Your task to perform on an android device: turn on javascript in the chrome app Image 0: 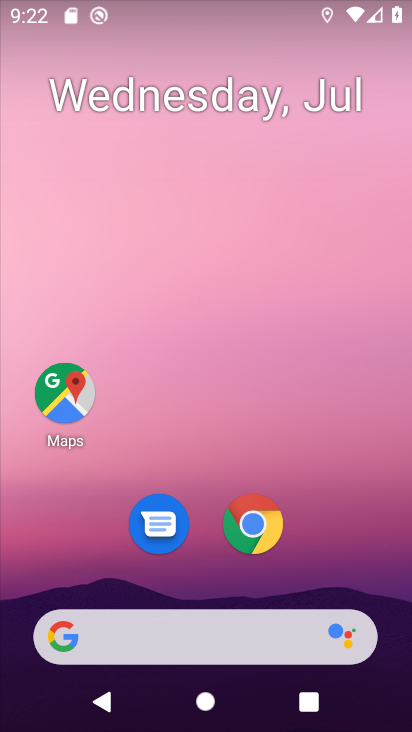
Step 0: click (259, 525)
Your task to perform on an android device: turn on javascript in the chrome app Image 1: 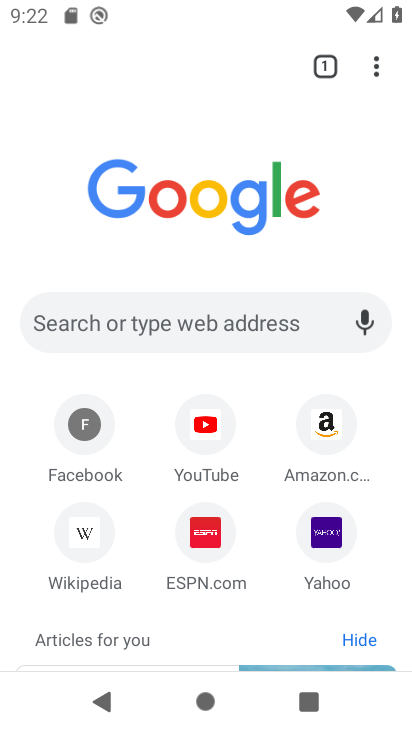
Step 1: click (375, 75)
Your task to perform on an android device: turn on javascript in the chrome app Image 2: 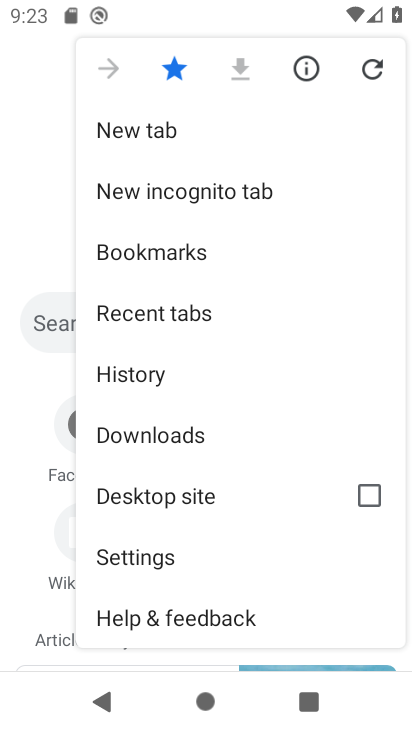
Step 2: click (167, 560)
Your task to perform on an android device: turn on javascript in the chrome app Image 3: 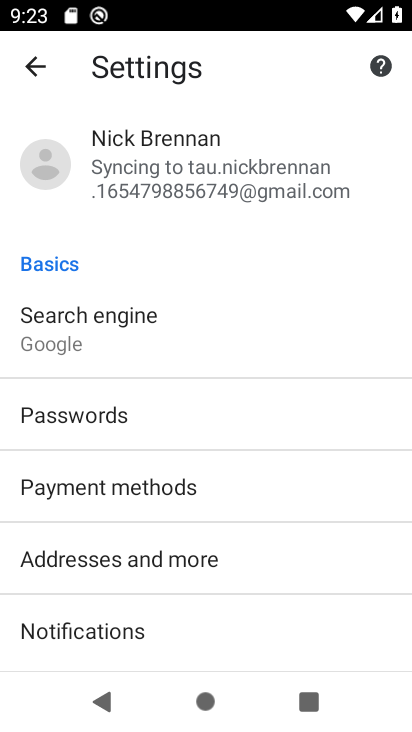
Step 3: drag from (215, 600) to (236, 138)
Your task to perform on an android device: turn on javascript in the chrome app Image 4: 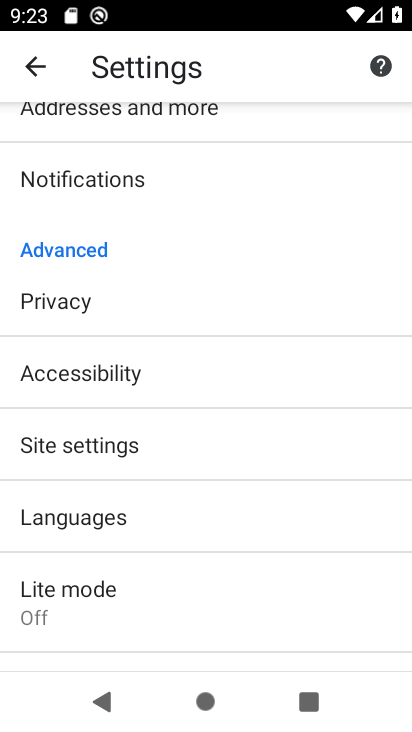
Step 4: click (138, 436)
Your task to perform on an android device: turn on javascript in the chrome app Image 5: 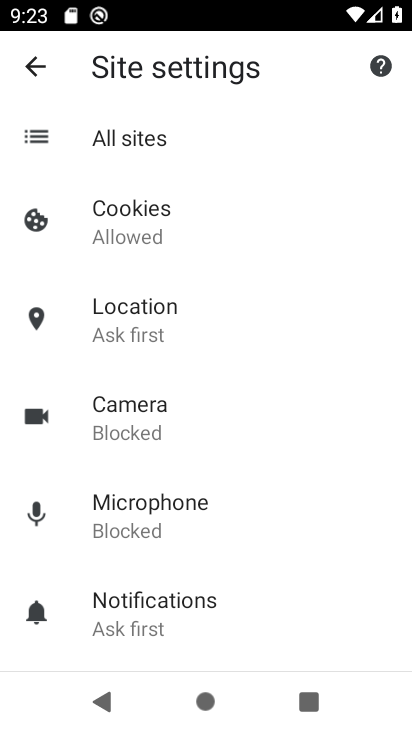
Step 5: drag from (278, 478) to (285, 217)
Your task to perform on an android device: turn on javascript in the chrome app Image 6: 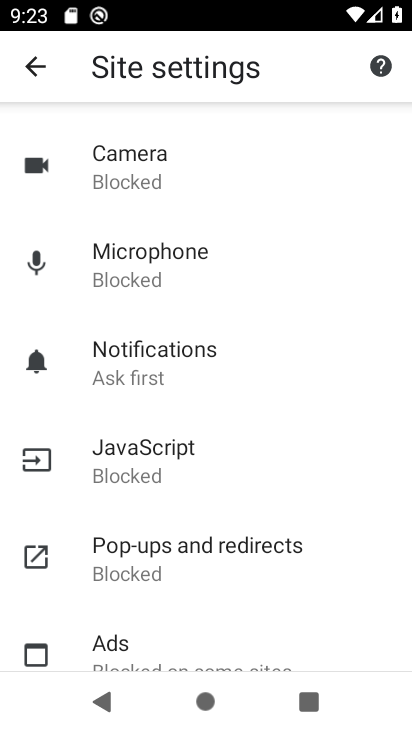
Step 6: click (188, 460)
Your task to perform on an android device: turn on javascript in the chrome app Image 7: 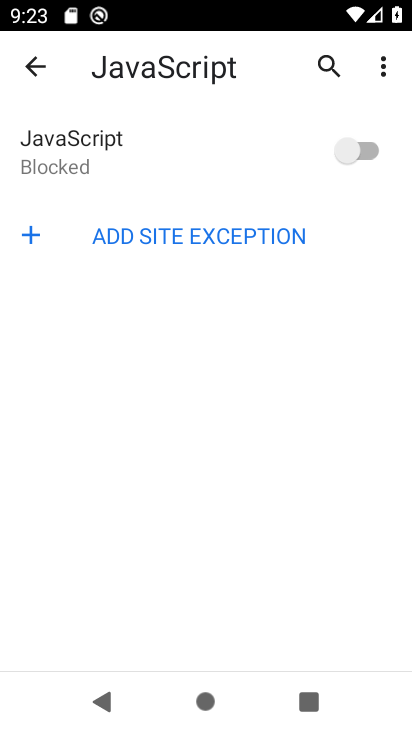
Step 7: click (352, 141)
Your task to perform on an android device: turn on javascript in the chrome app Image 8: 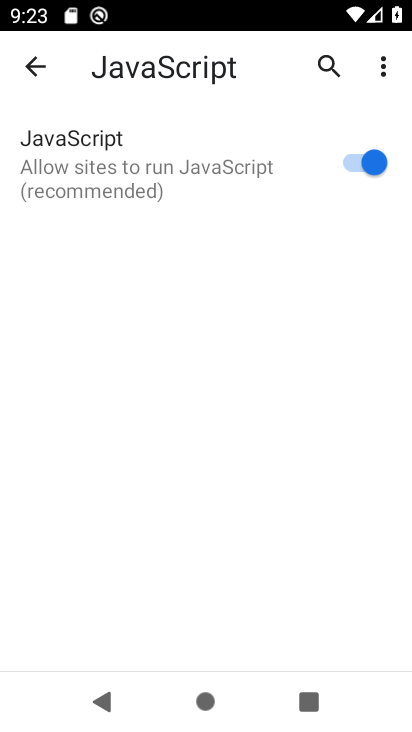
Step 8: task complete